Your task to perform on an android device: uninstall "Etsy: Buy & Sell Unique Items" Image 0: 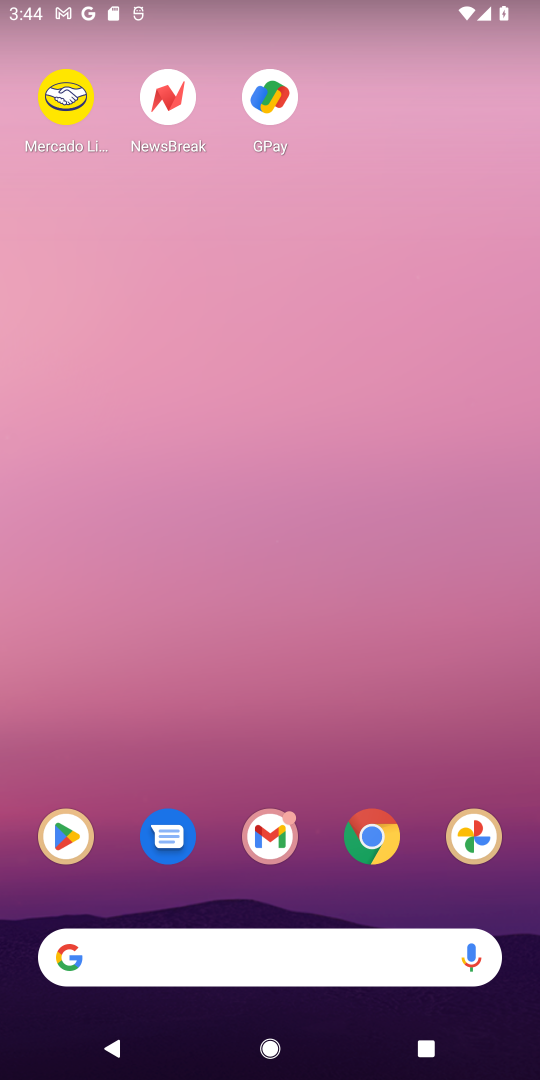
Step 0: drag from (329, 940) to (286, 346)
Your task to perform on an android device: uninstall "Etsy: Buy & Sell Unique Items" Image 1: 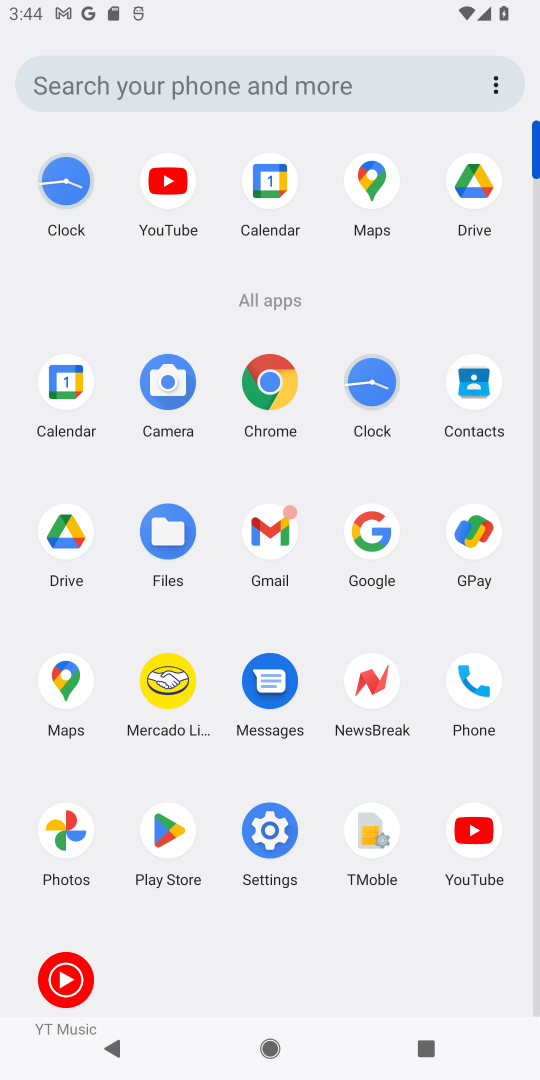
Step 1: click (168, 842)
Your task to perform on an android device: uninstall "Etsy: Buy & Sell Unique Items" Image 2: 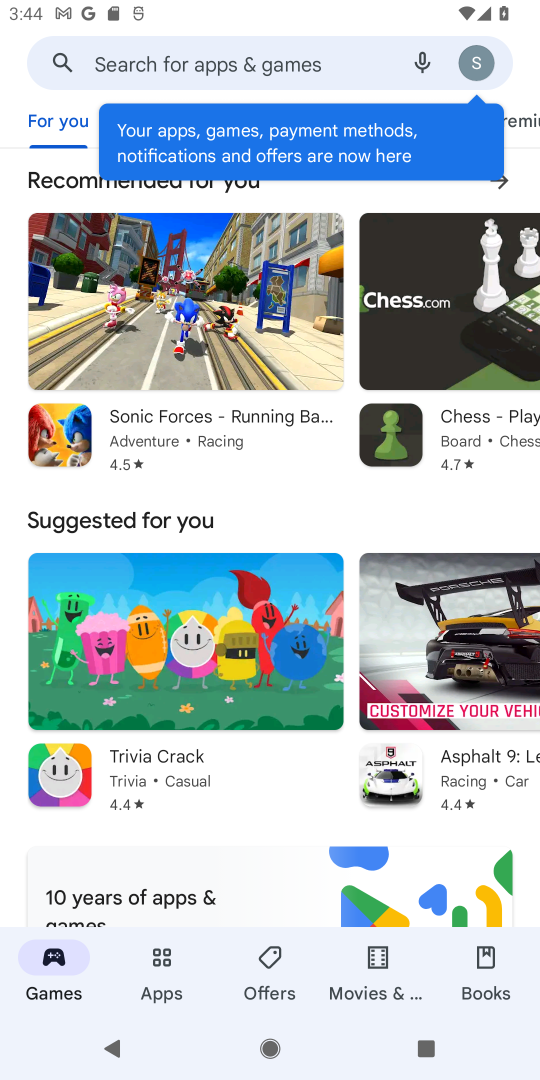
Step 2: click (123, 69)
Your task to perform on an android device: uninstall "Etsy: Buy & Sell Unique Items" Image 3: 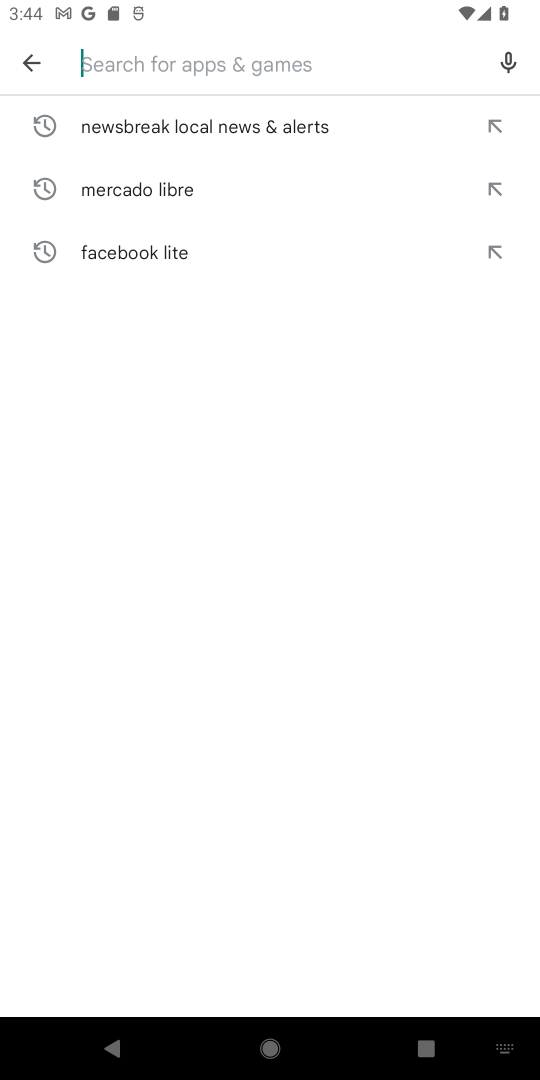
Step 3: type "Etsy: Buy & Sell Unique Items"
Your task to perform on an android device: uninstall "Etsy: Buy & Sell Unique Items" Image 4: 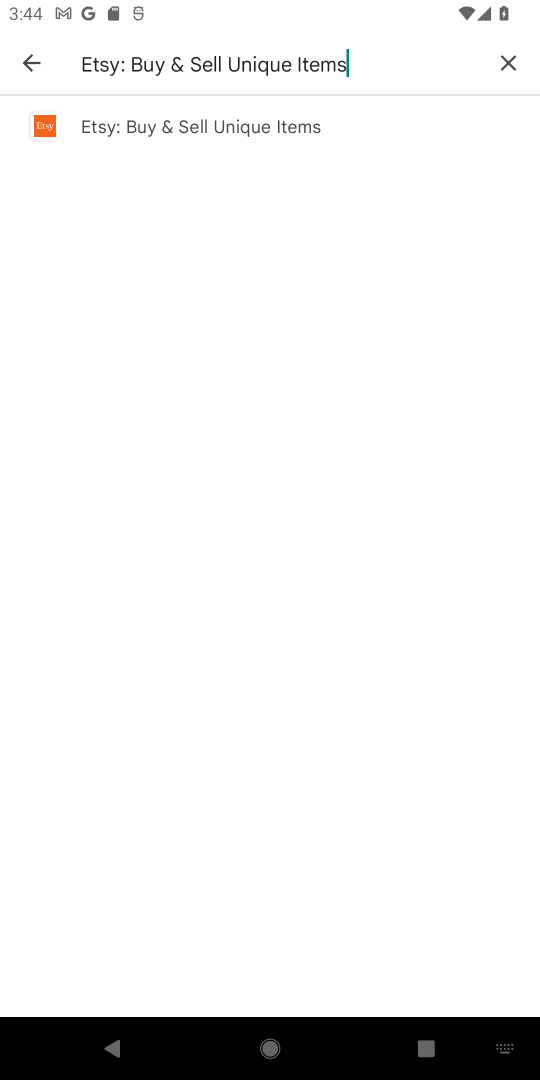
Step 4: click (296, 141)
Your task to perform on an android device: uninstall "Etsy: Buy & Sell Unique Items" Image 5: 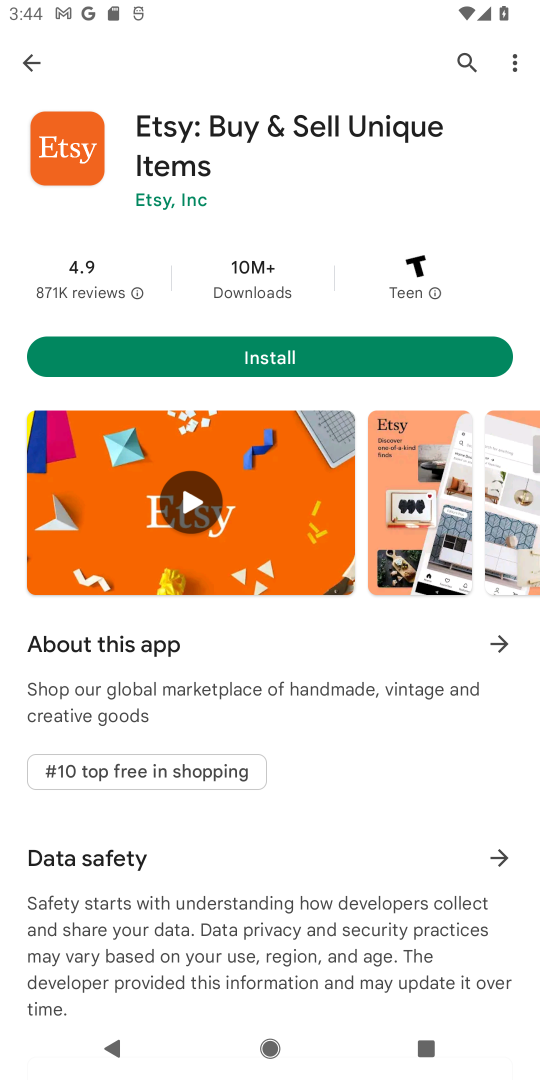
Step 5: task complete